Your task to perform on an android device: Open calendar and show me the second week of next month Image 0: 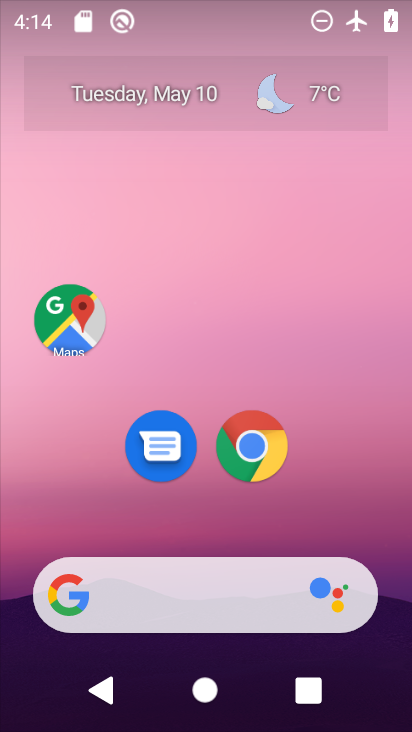
Step 0: drag from (323, 478) to (254, 88)
Your task to perform on an android device: Open calendar and show me the second week of next month Image 1: 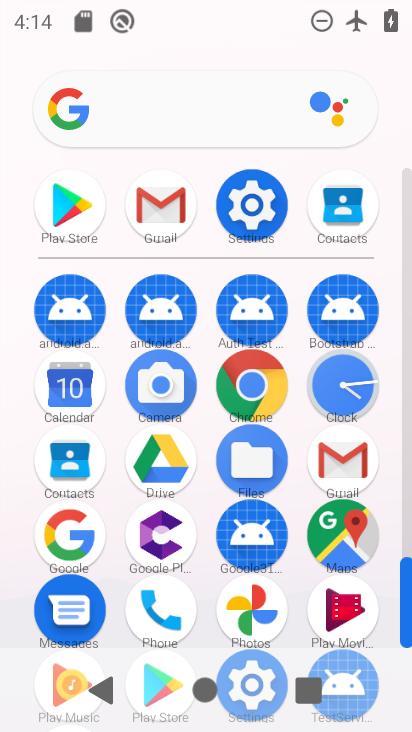
Step 1: click (83, 399)
Your task to perform on an android device: Open calendar and show me the second week of next month Image 2: 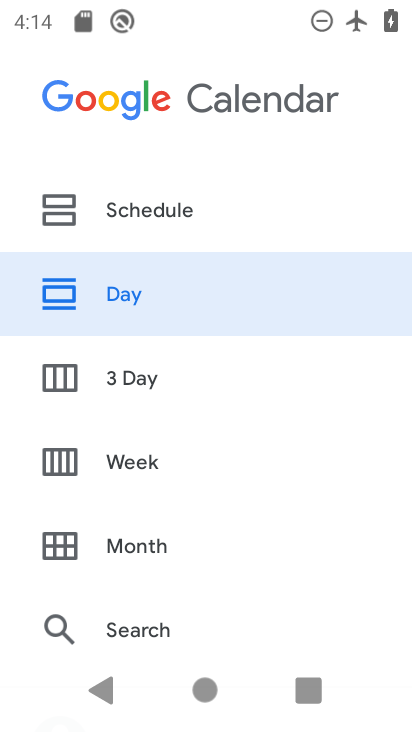
Step 2: click (160, 454)
Your task to perform on an android device: Open calendar and show me the second week of next month Image 3: 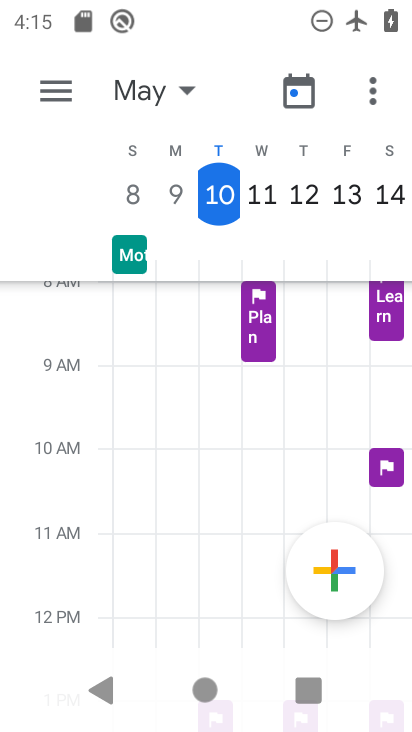
Step 3: click (170, 82)
Your task to perform on an android device: Open calendar and show me the second week of next month Image 4: 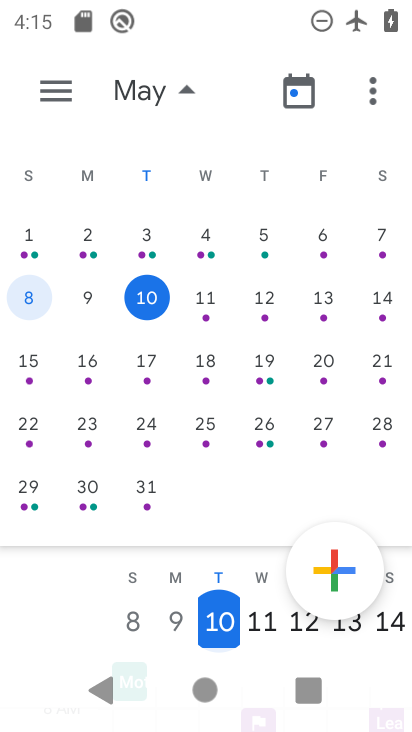
Step 4: drag from (357, 332) to (16, 313)
Your task to perform on an android device: Open calendar and show me the second week of next month Image 5: 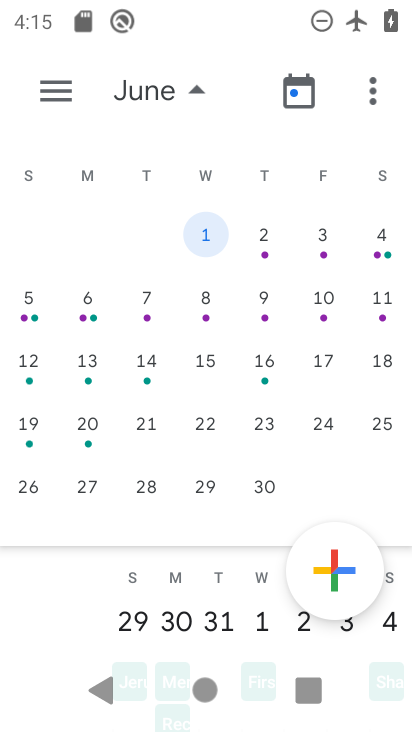
Step 5: click (37, 307)
Your task to perform on an android device: Open calendar and show me the second week of next month Image 6: 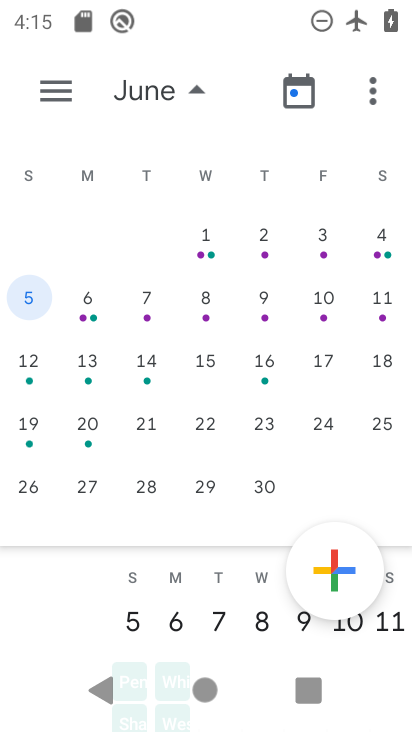
Step 6: task complete